Your task to perform on an android device: toggle notifications settings in the gmail app Image 0: 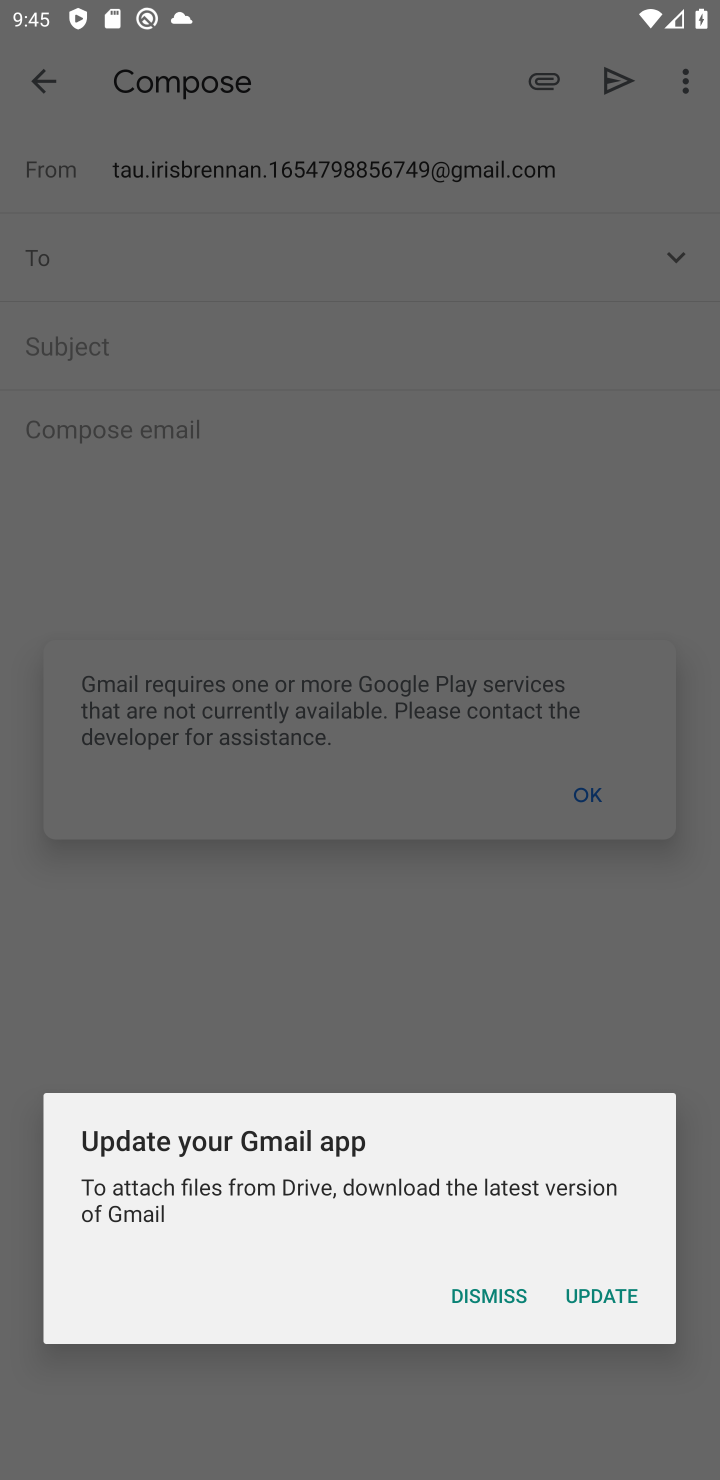
Step 0: press home button
Your task to perform on an android device: toggle notifications settings in the gmail app Image 1: 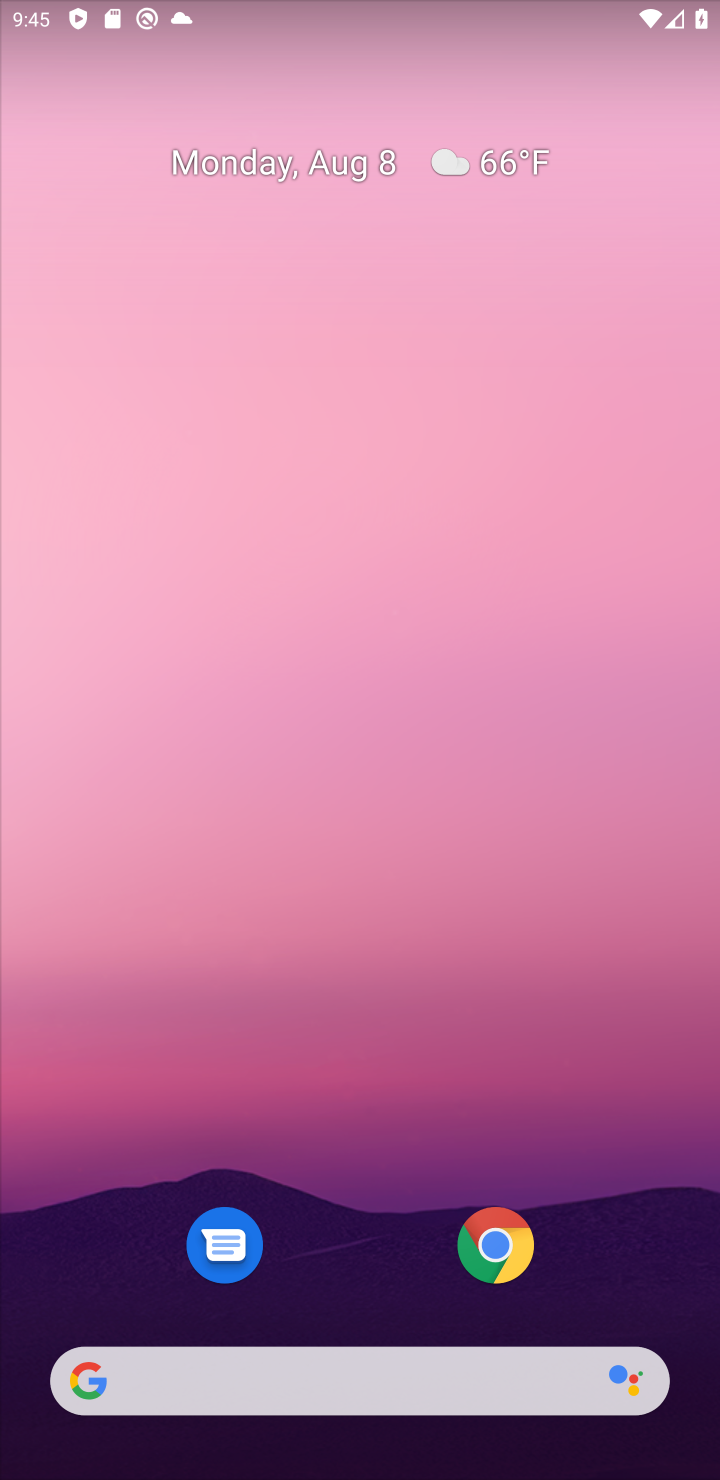
Step 1: drag from (369, 1223) to (322, 548)
Your task to perform on an android device: toggle notifications settings in the gmail app Image 2: 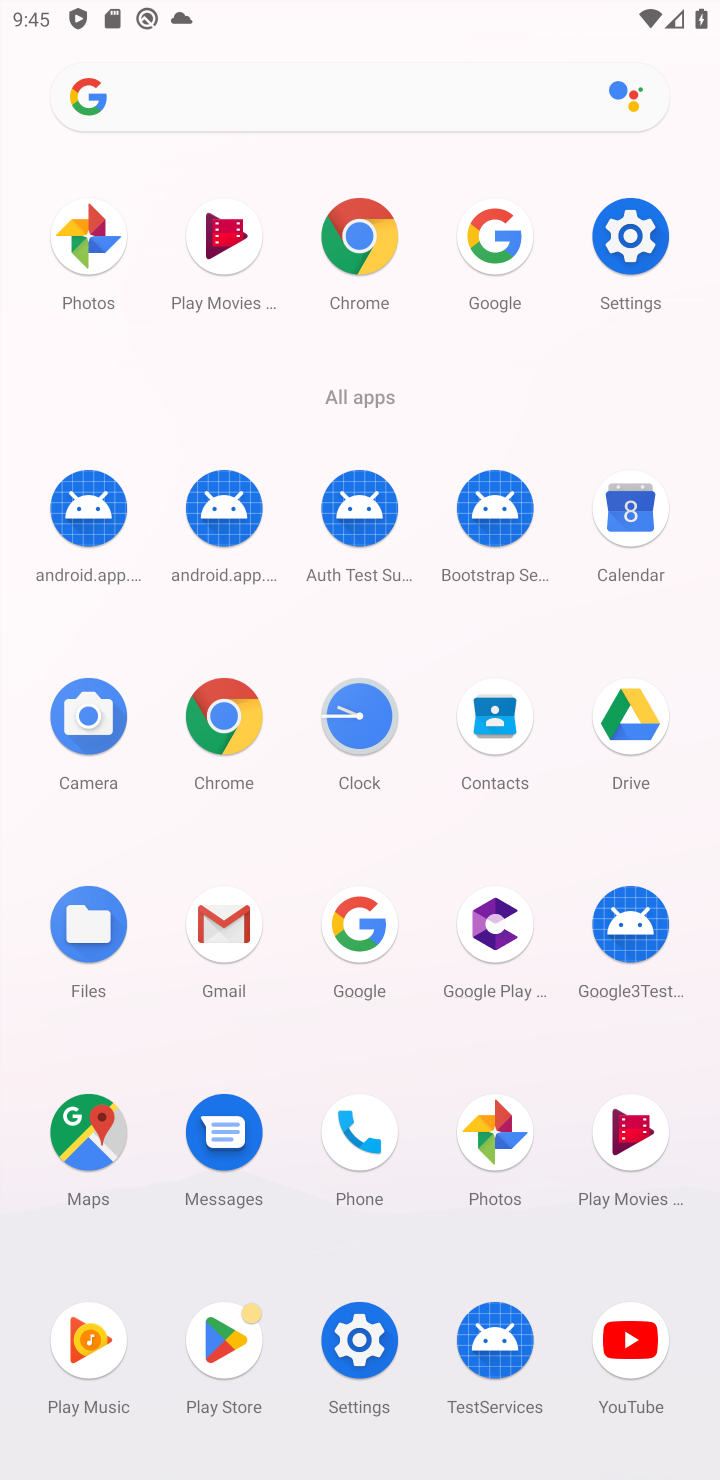
Step 2: click (213, 915)
Your task to perform on an android device: toggle notifications settings in the gmail app Image 3: 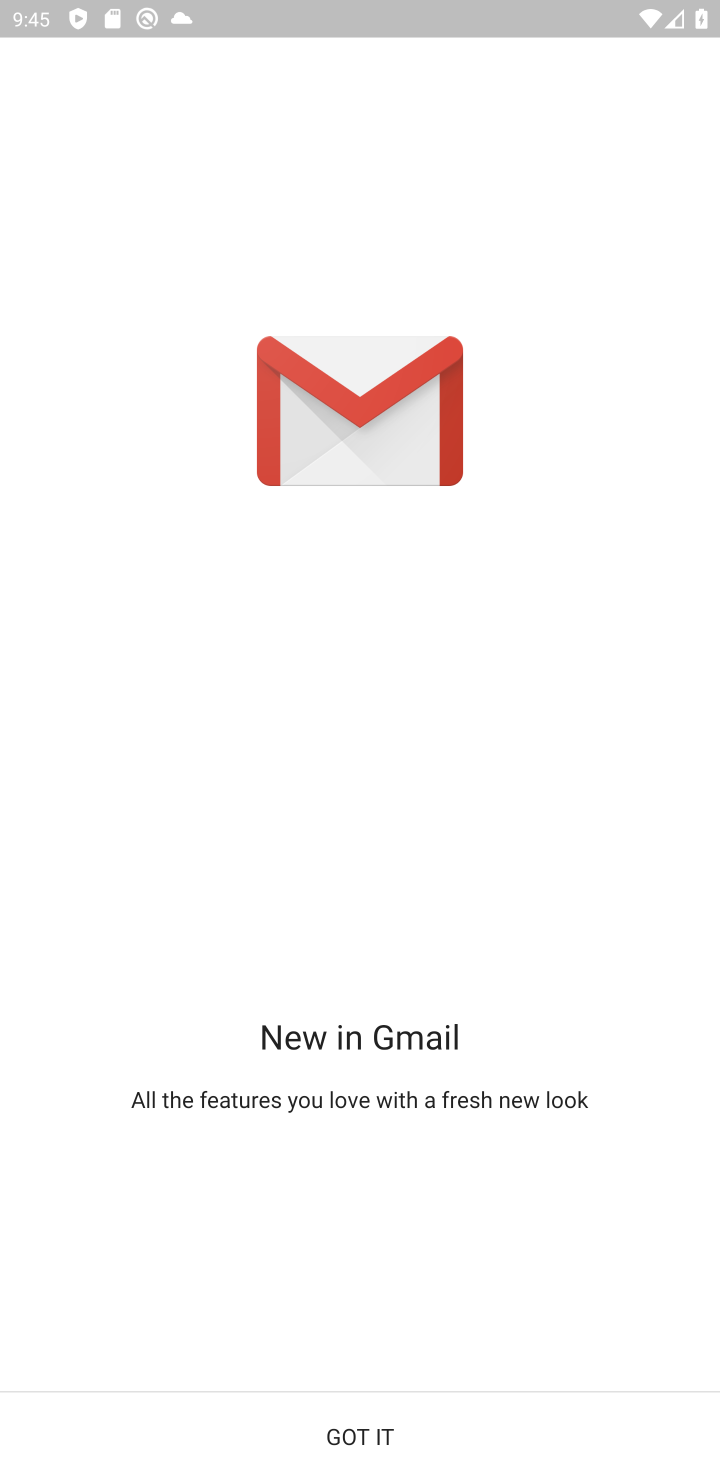
Step 3: click (361, 1433)
Your task to perform on an android device: toggle notifications settings in the gmail app Image 4: 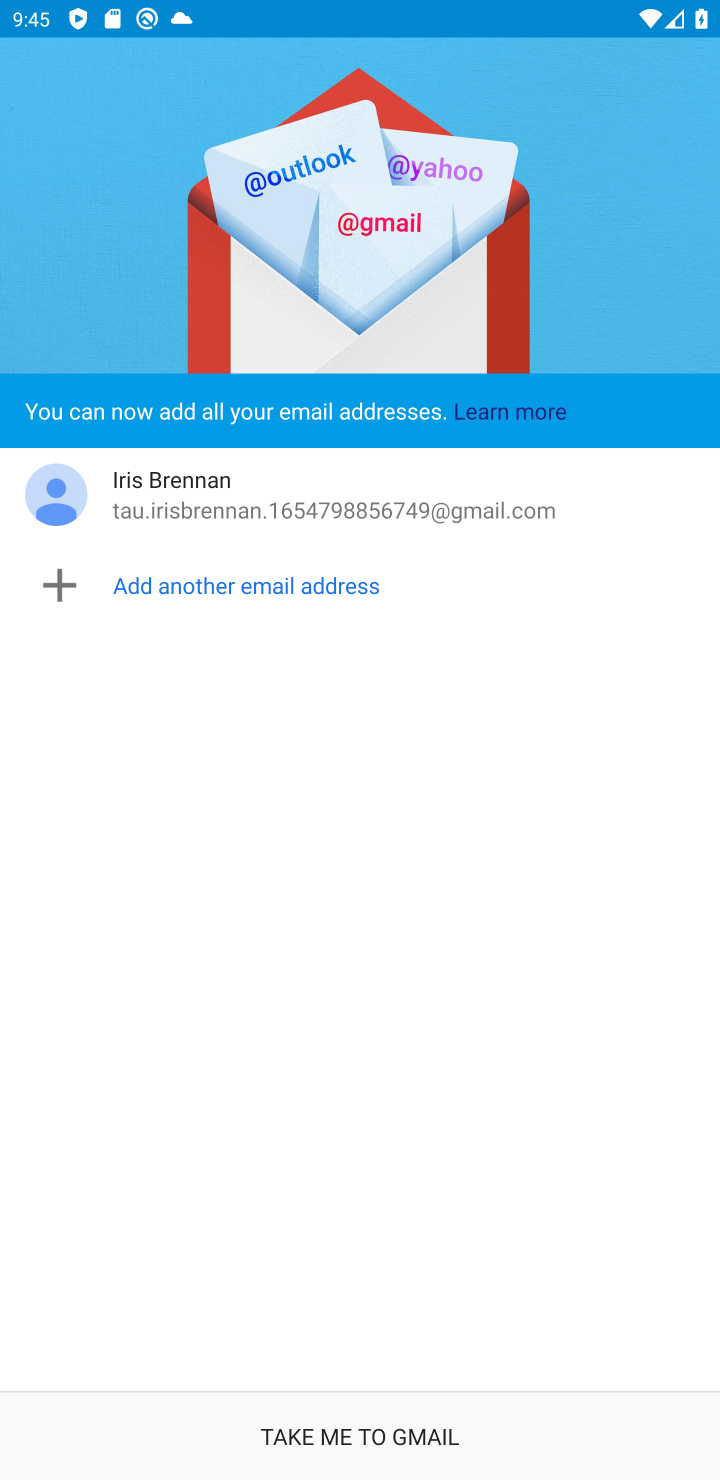
Step 4: click (361, 1433)
Your task to perform on an android device: toggle notifications settings in the gmail app Image 5: 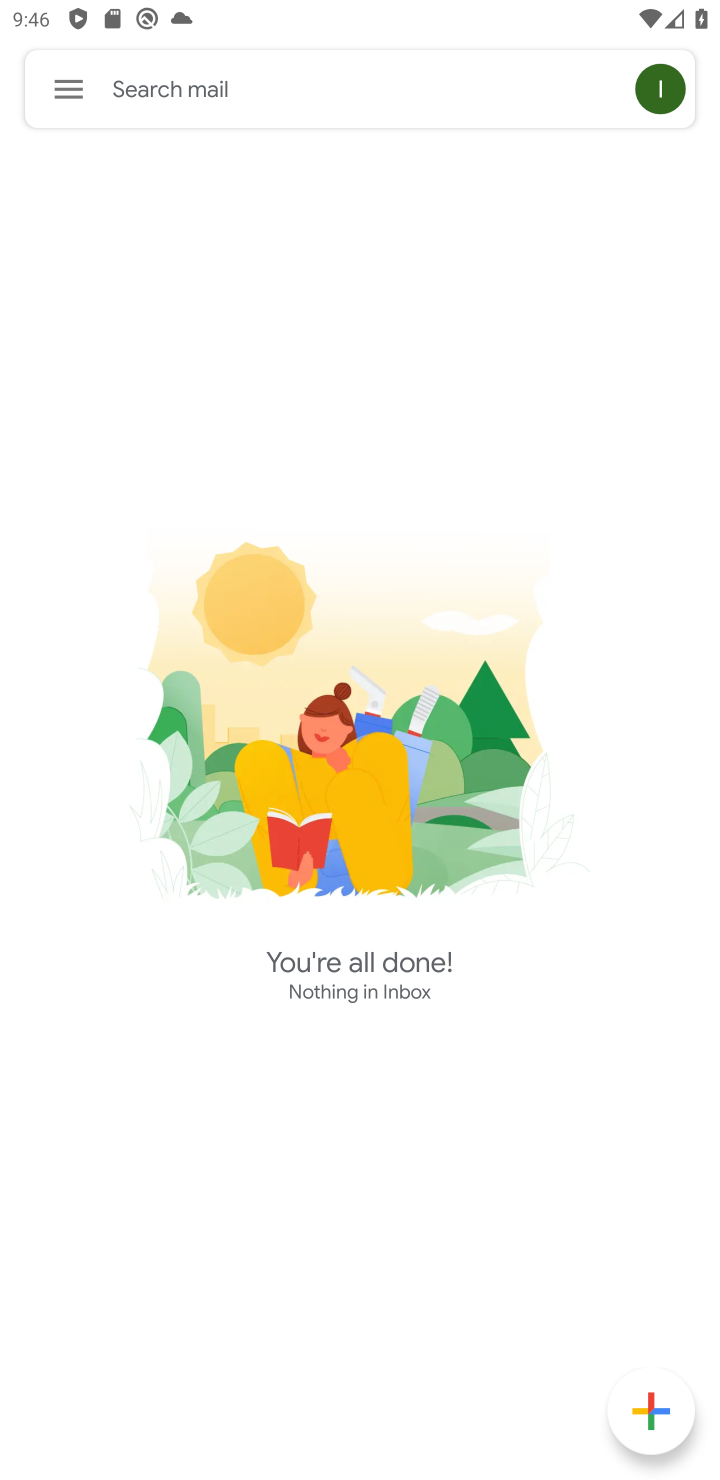
Step 5: click (71, 81)
Your task to perform on an android device: toggle notifications settings in the gmail app Image 6: 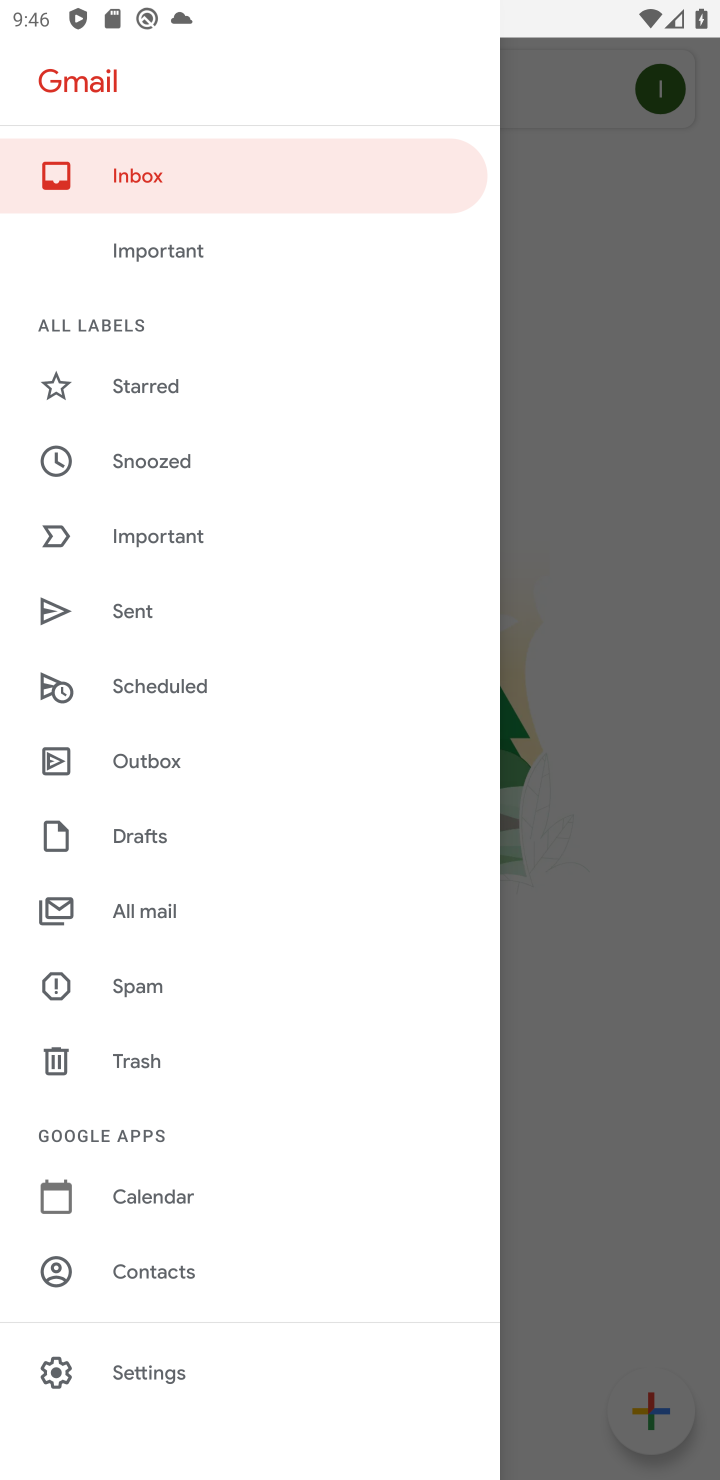
Step 6: click (135, 1349)
Your task to perform on an android device: toggle notifications settings in the gmail app Image 7: 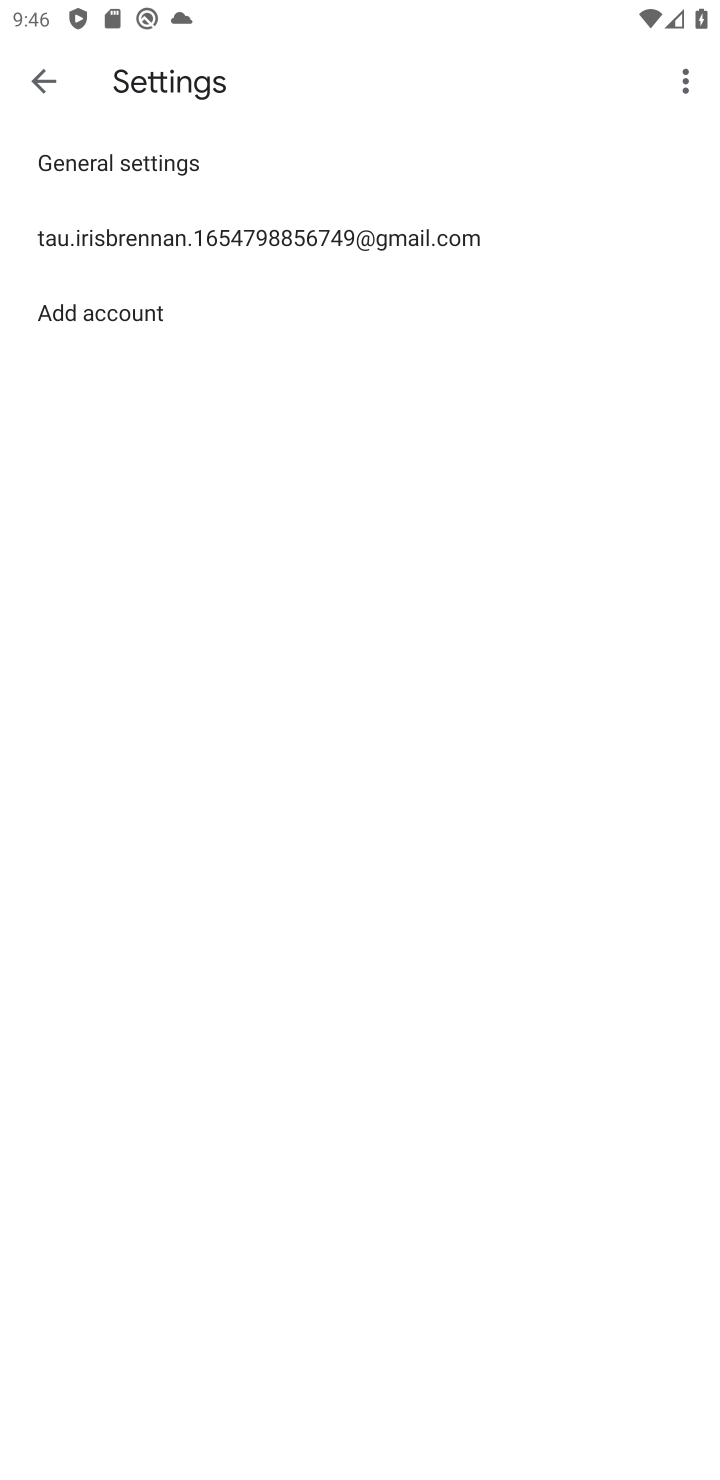
Step 7: click (123, 149)
Your task to perform on an android device: toggle notifications settings in the gmail app Image 8: 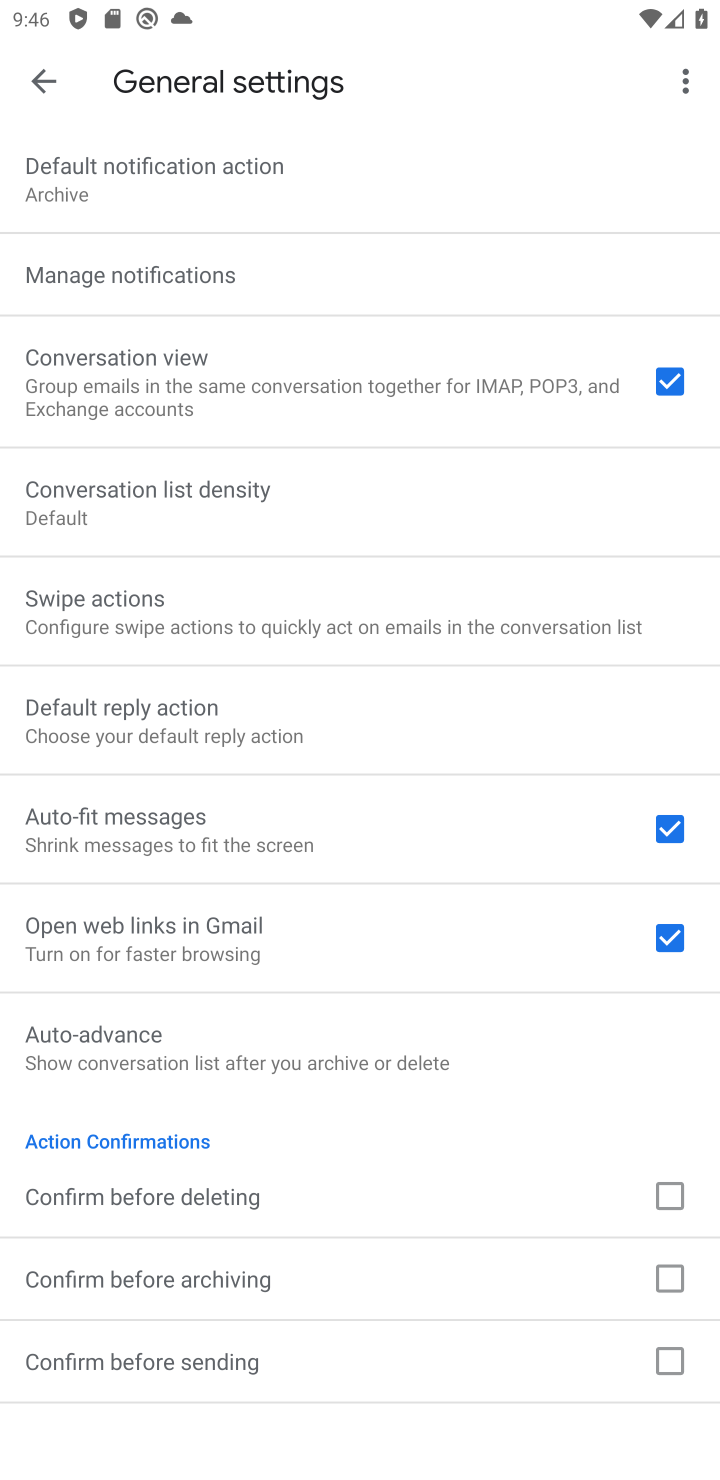
Step 8: click (172, 268)
Your task to perform on an android device: toggle notifications settings in the gmail app Image 9: 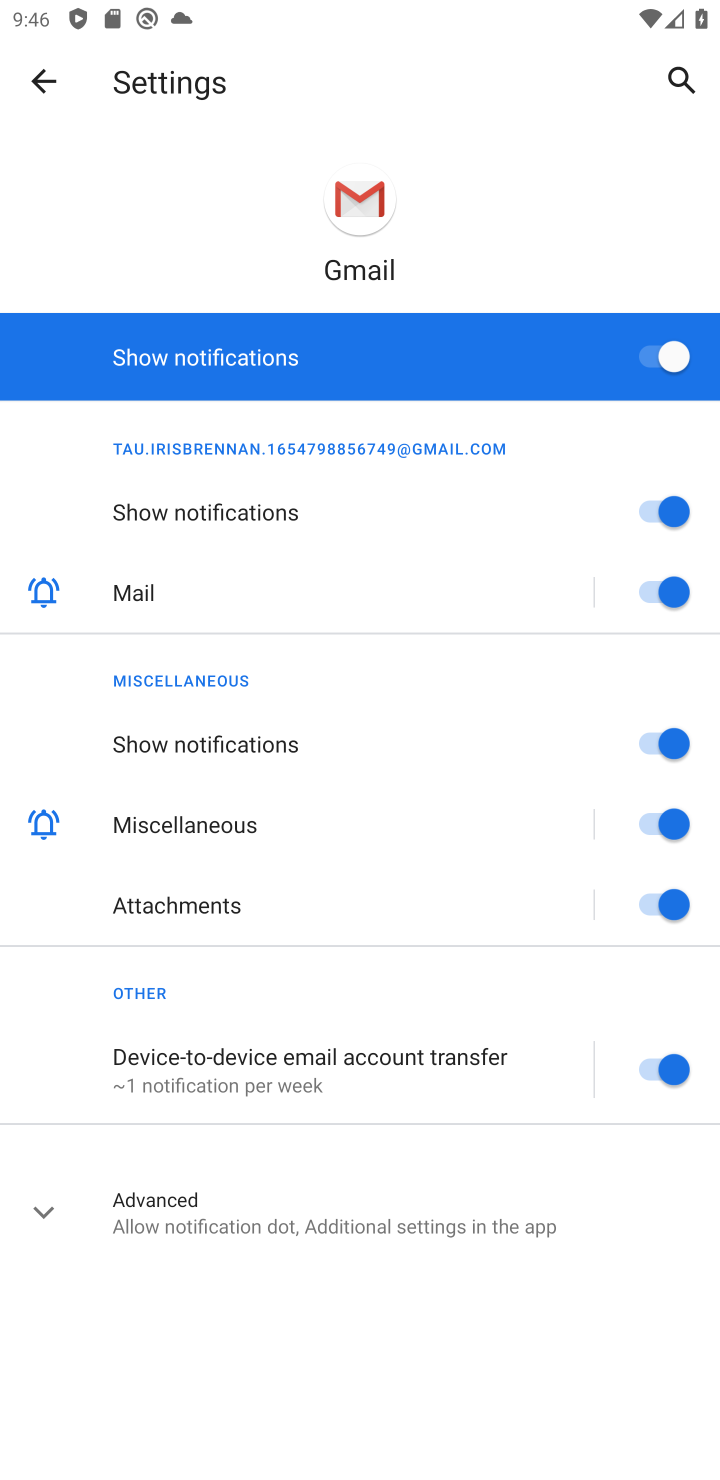
Step 9: click (678, 353)
Your task to perform on an android device: toggle notifications settings in the gmail app Image 10: 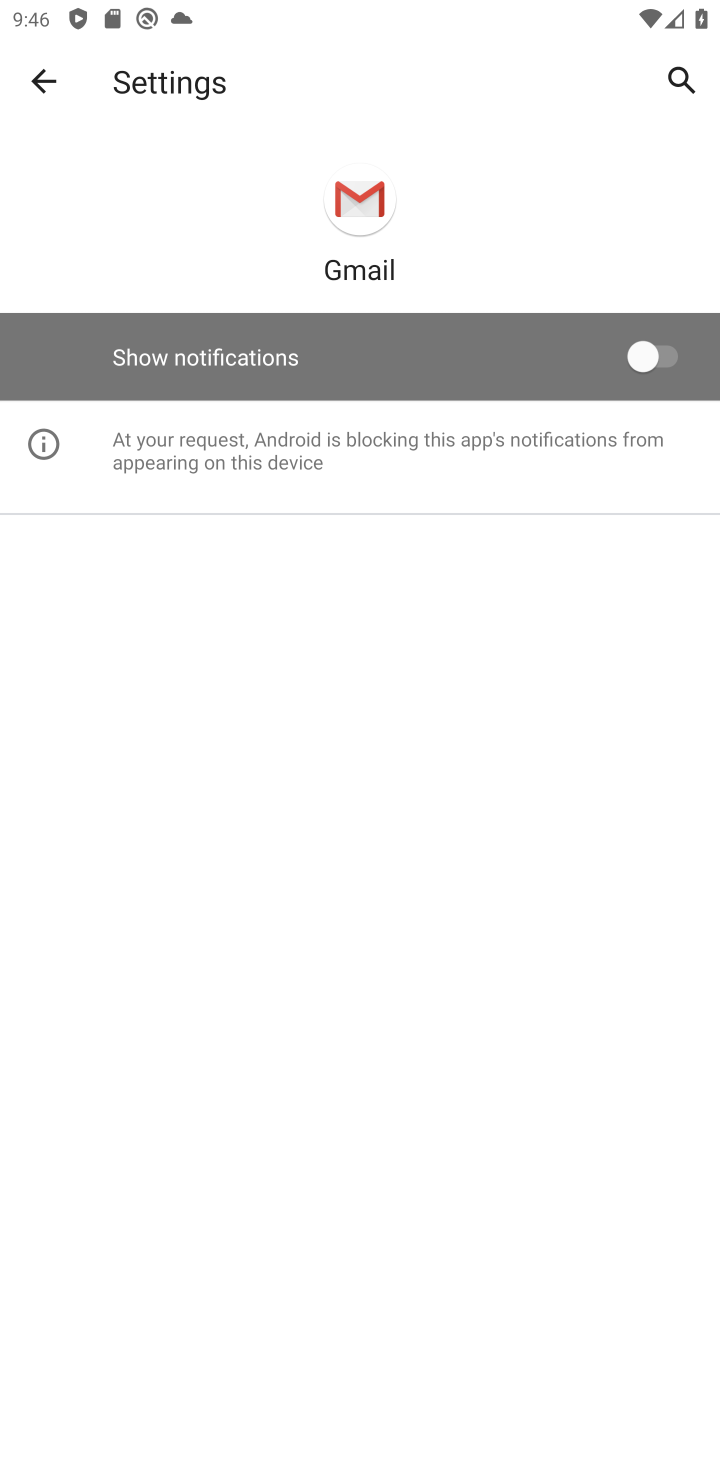
Step 10: task complete